Your task to perform on an android device: open a bookmark in the chrome app Image 0: 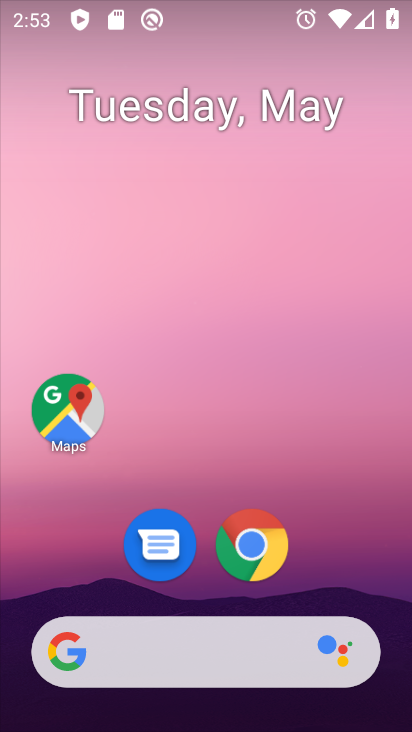
Step 0: click (264, 555)
Your task to perform on an android device: open a bookmark in the chrome app Image 1: 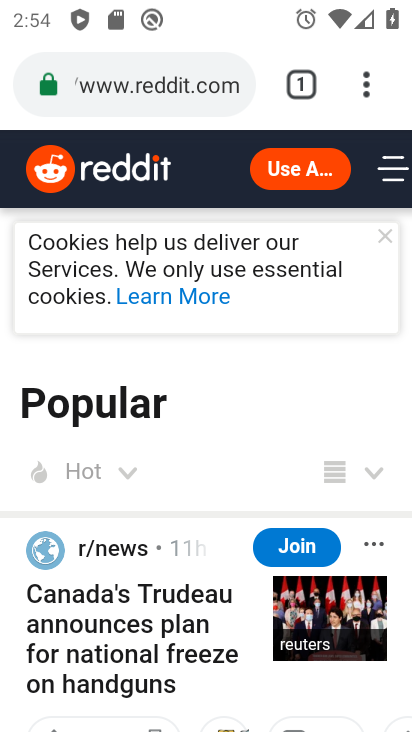
Step 1: drag from (366, 94) to (106, 322)
Your task to perform on an android device: open a bookmark in the chrome app Image 2: 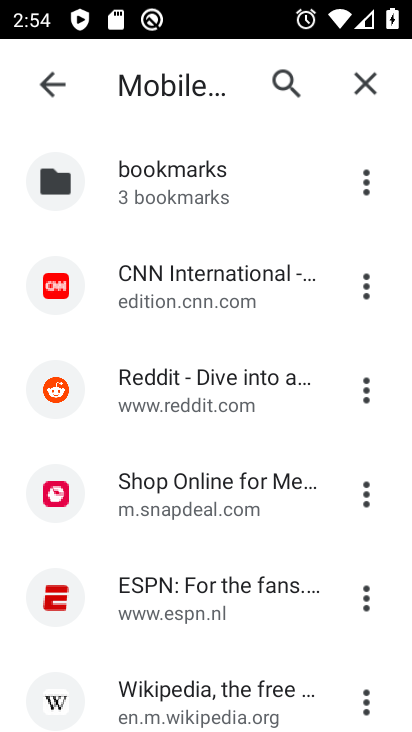
Step 2: click (254, 294)
Your task to perform on an android device: open a bookmark in the chrome app Image 3: 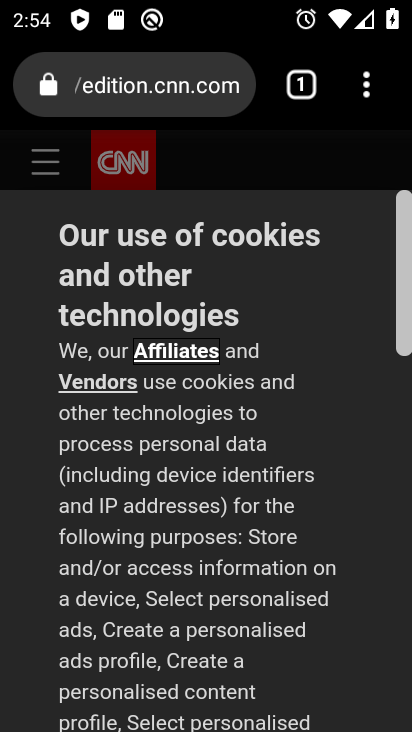
Step 3: task complete